Your task to perform on an android device: turn off improve location accuracy Image 0: 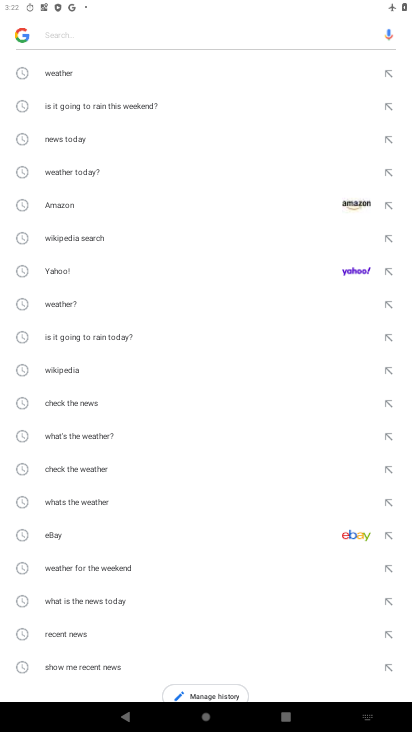
Step 0: press back button
Your task to perform on an android device: turn off improve location accuracy Image 1: 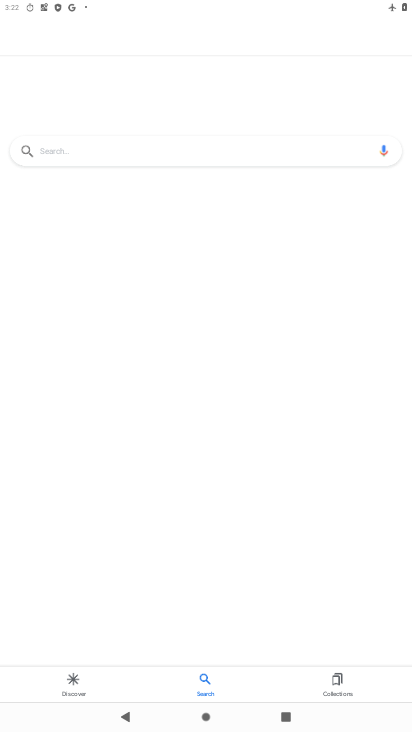
Step 1: press back button
Your task to perform on an android device: turn off improve location accuracy Image 2: 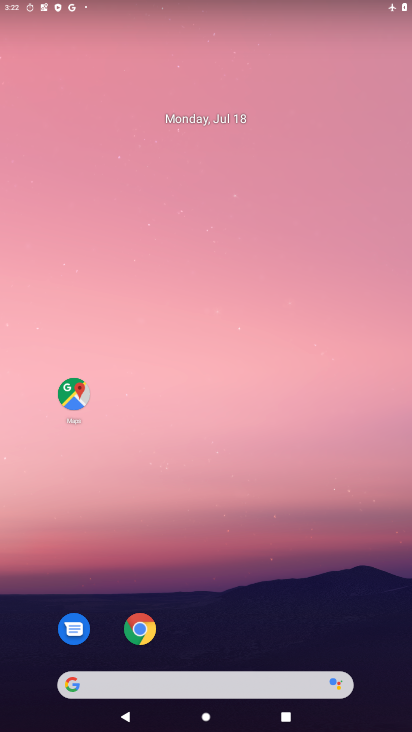
Step 2: drag from (216, 655) to (178, 40)
Your task to perform on an android device: turn off improve location accuracy Image 3: 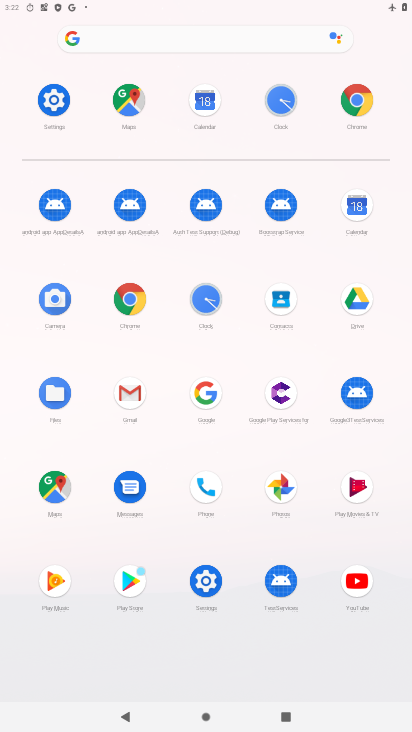
Step 3: click (207, 586)
Your task to perform on an android device: turn off improve location accuracy Image 4: 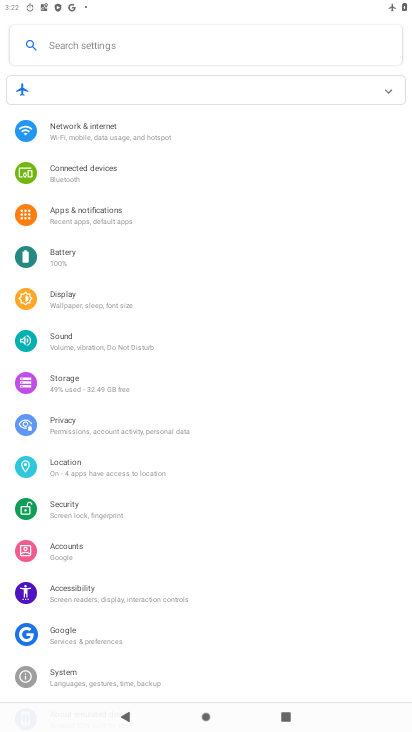
Step 4: click (78, 470)
Your task to perform on an android device: turn off improve location accuracy Image 5: 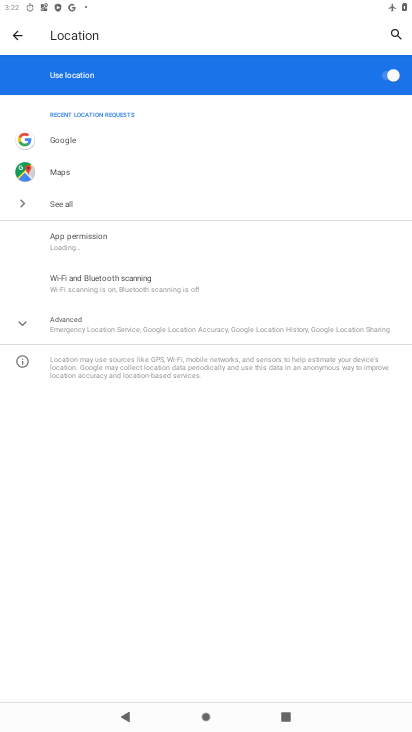
Step 5: click (76, 312)
Your task to perform on an android device: turn off improve location accuracy Image 6: 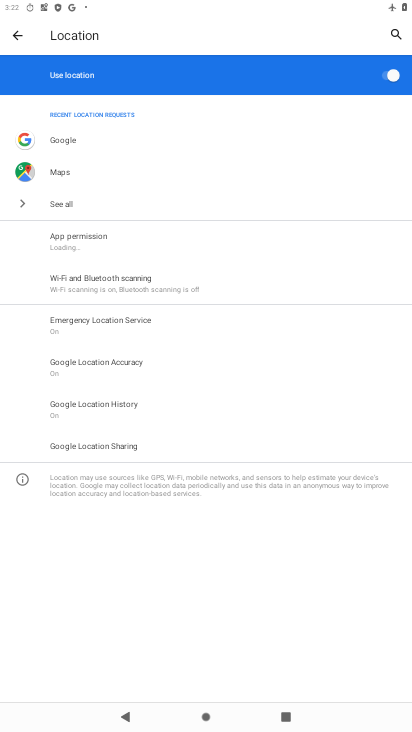
Step 6: click (96, 365)
Your task to perform on an android device: turn off improve location accuracy Image 7: 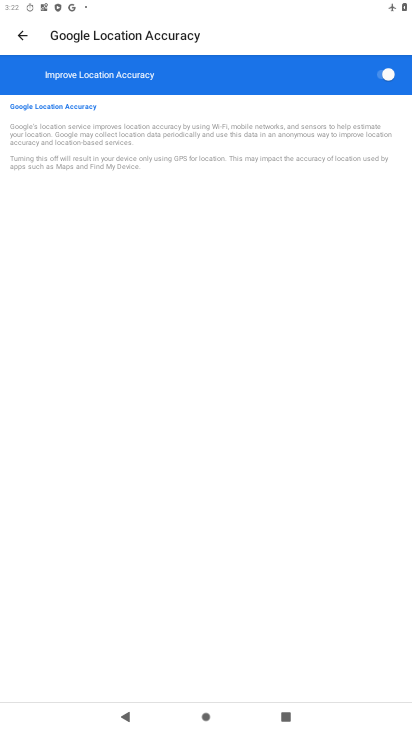
Step 7: click (382, 77)
Your task to perform on an android device: turn off improve location accuracy Image 8: 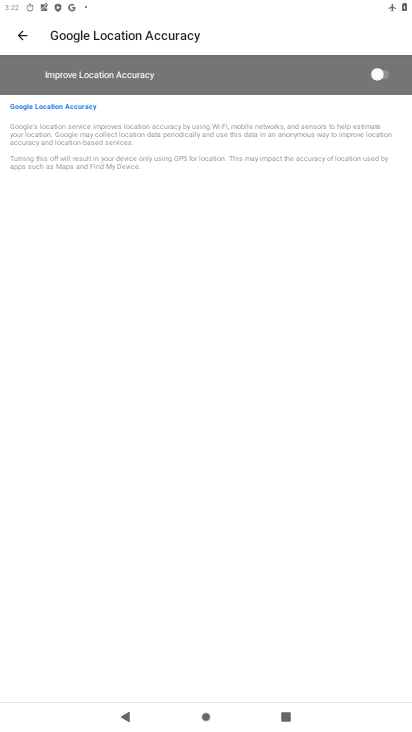
Step 8: task complete